Your task to perform on an android device: Open Yahoo.com Image 0: 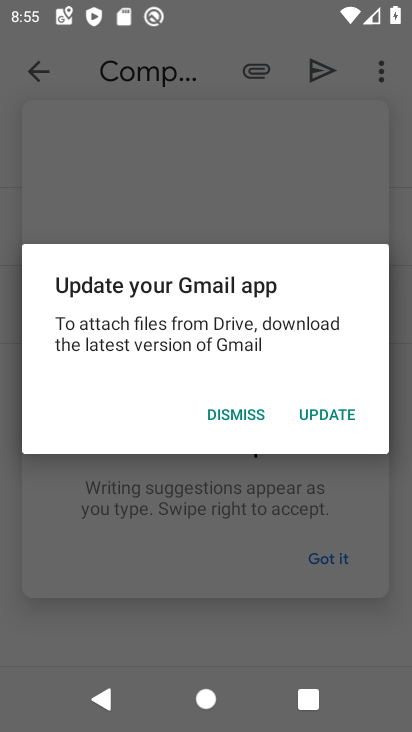
Step 0: press home button
Your task to perform on an android device: Open Yahoo.com Image 1: 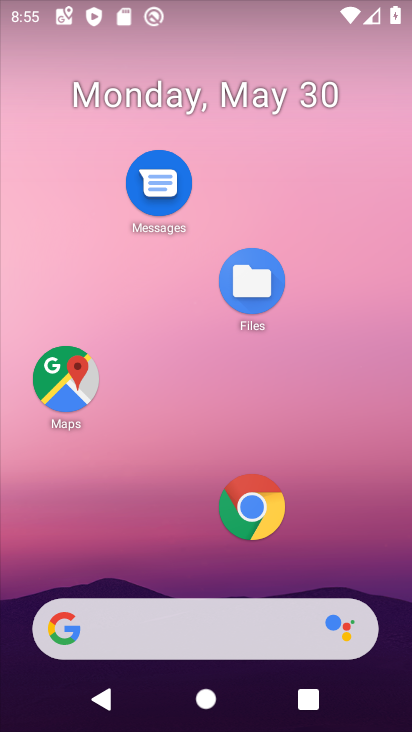
Step 1: click (248, 522)
Your task to perform on an android device: Open Yahoo.com Image 2: 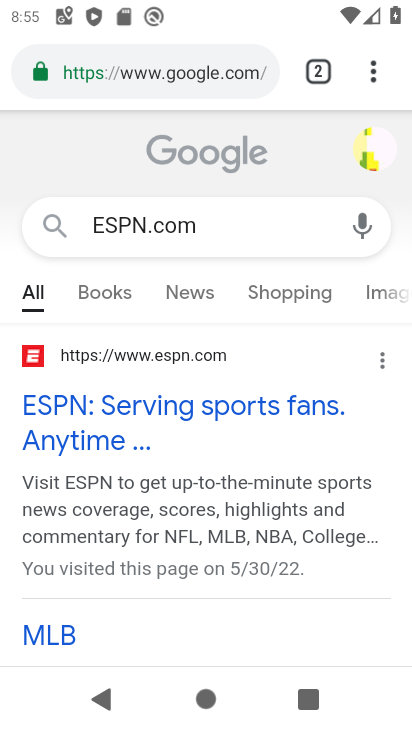
Step 2: click (207, 72)
Your task to perform on an android device: Open Yahoo.com Image 3: 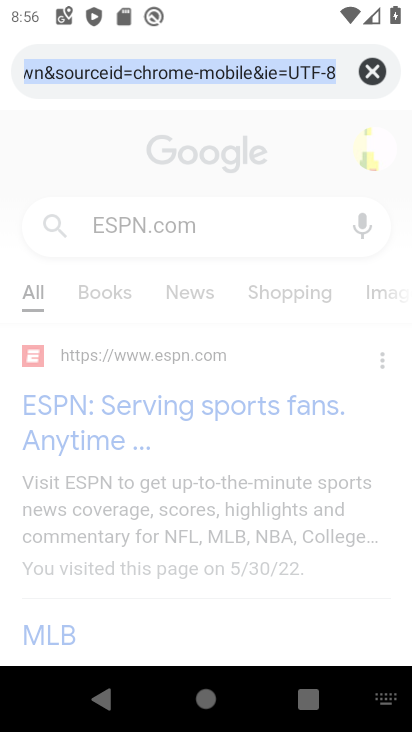
Step 3: type "Yahoo.com"
Your task to perform on an android device: Open Yahoo.com Image 4: 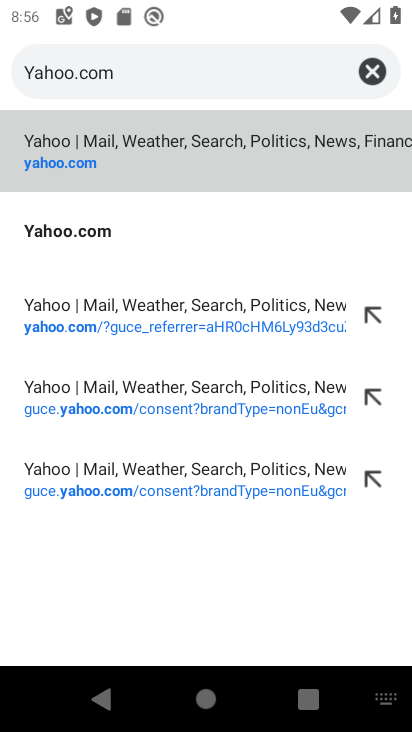
Step 4: click (137, 157)
Your task to perform on an android device: Open Yahoo.com Image 5: 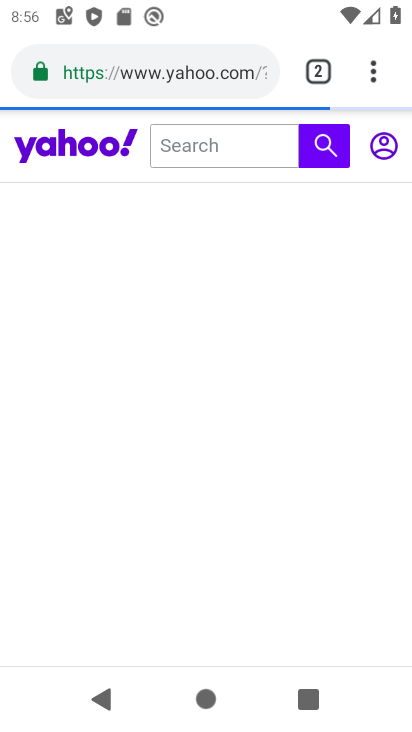
Step 5: task complete